Your task to perform on an android device: Go to Google maps Image 0: 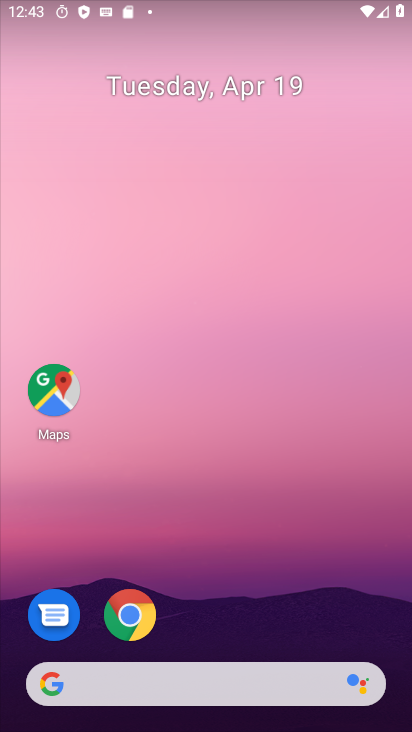
Step 0: drag from (386, 611) to (384, 142)
Your task to perform on an android device: Go to Google maps Image 1: 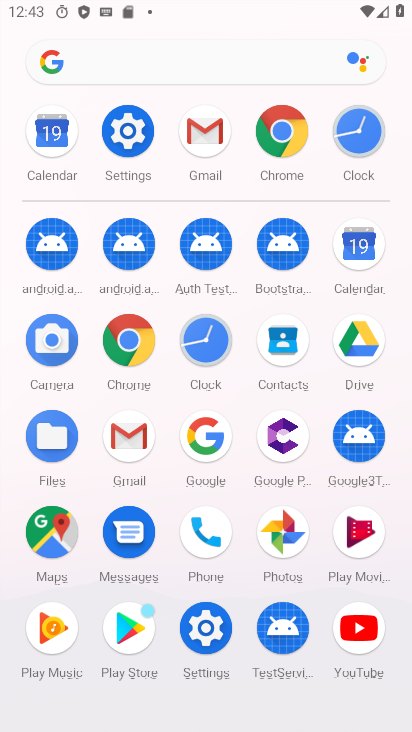
Step 1: click (63, 552)
Your task to perform on an android device: Go to Google maps Image 2: 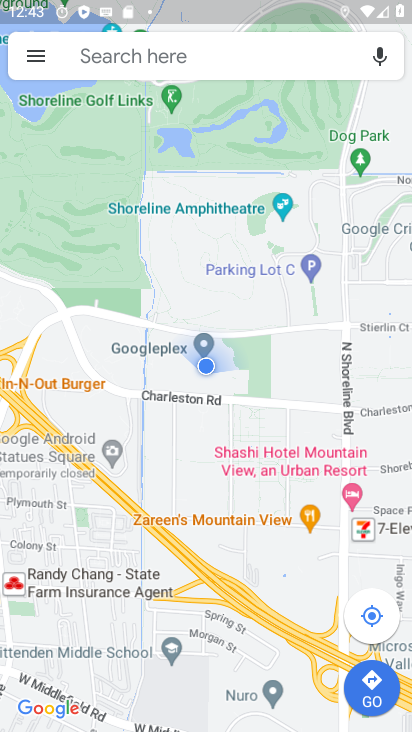
Step 2: task complete